Your task to perform on an android device: search for starred emails in the gmail app Image 0: 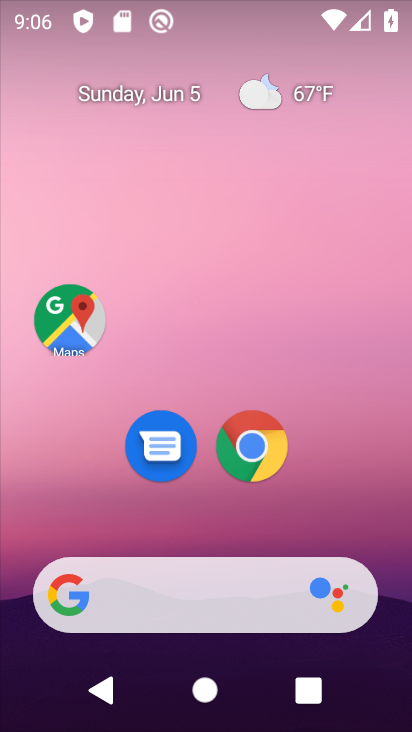
Step 0: drag from (199, 539) to (176, 238)
Your task to perform on an android device: search for starred emails in the gmail app Image 1: 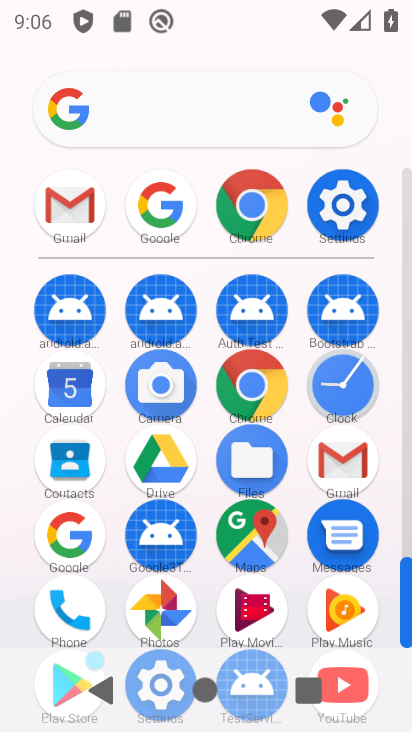
Step 1: click (80, 208)
Your task to perform on an android device: search for starred emails in the gmail app Image 2: 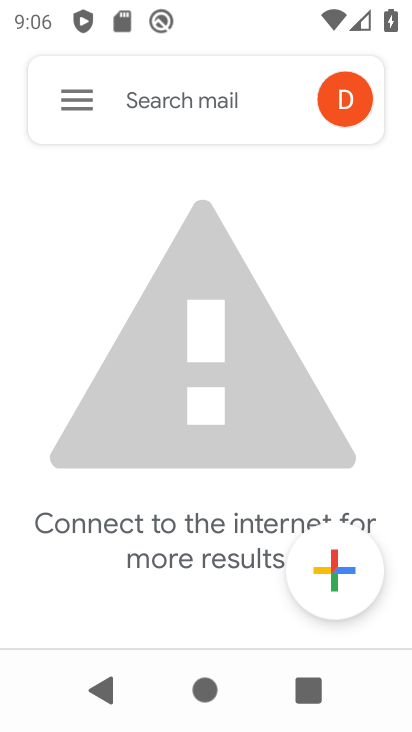
Step 2: click (70, 106)
Your task to perform on an android device: search for starred emails in the gmail app Image 3: 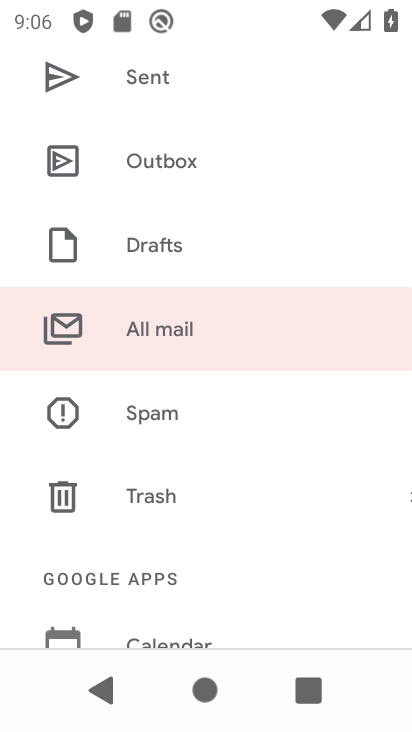
Step 3: drag from (194, 177) to (213, 440)
Your task to perform on an android device: search for starred emails in the gmail app Image 4: 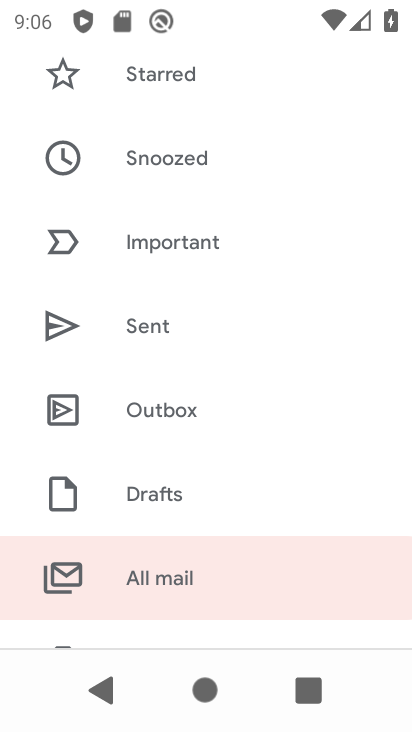
Step 4: click (183, 82)
Your task to perform on an android device: search for starred emails in the gmail app Image 5: 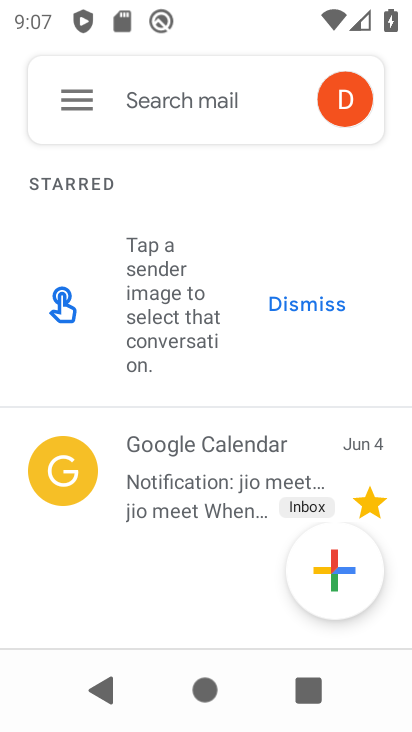
Step 5: task complete